Your task to perform on an android device: turn off airplane mode Image 0: 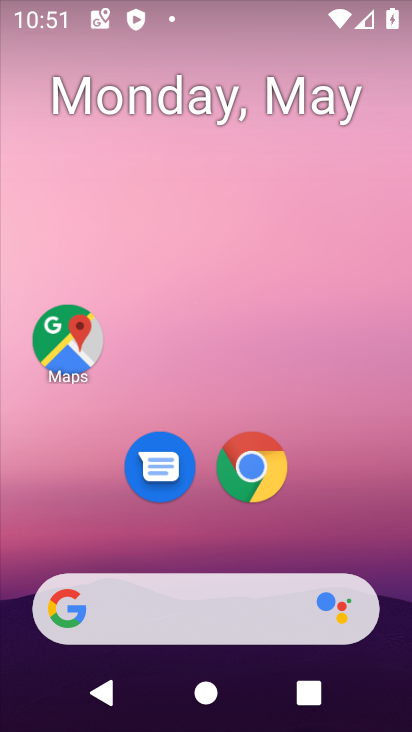
Step 0: drag from (404, 607) to (307, 171)
Your task to perform on an android device: turn off airplane mode Image 1: 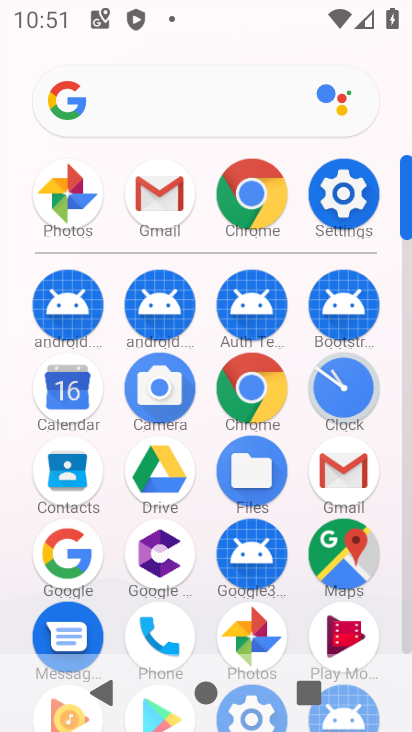
Step 1: click (408, 634)
Your task to perform on an android device: turn off airplane mode Image 2: 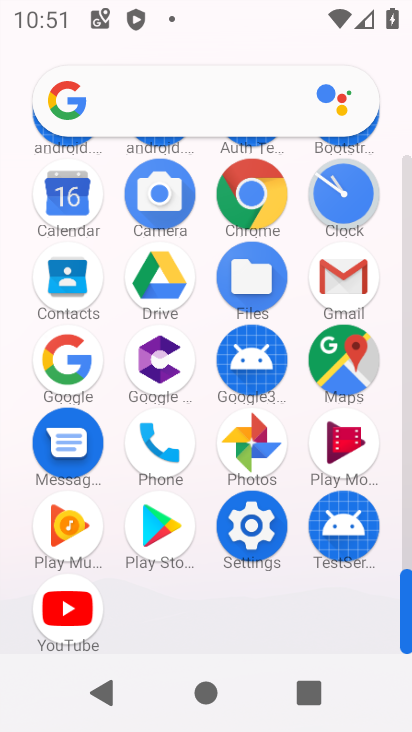
Step 2: click (257, 528)
Your task to perform on an android device: turn off airplane mode Image 3: 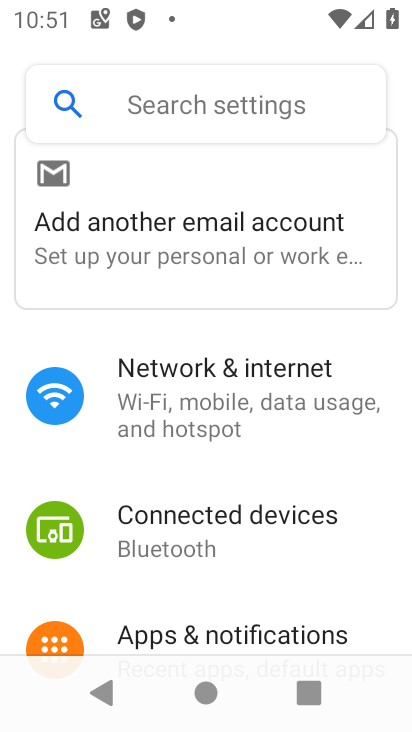
Step 3: click (185, 397)
Your task to perform on an android device: turn off airplane mode Image 4: 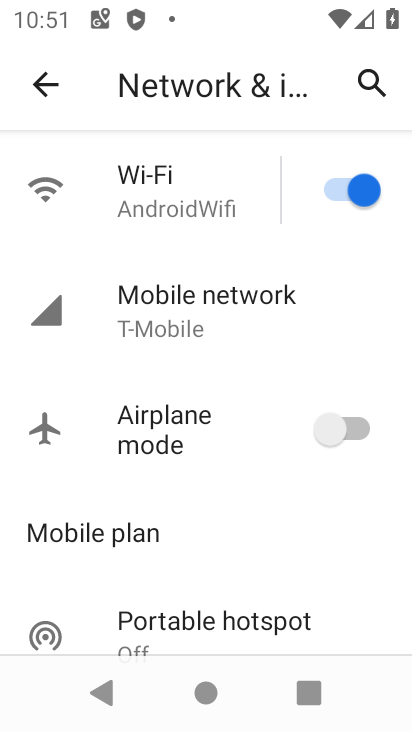
Step 4: task complete